Your task to perform on an android device: See recent photos Image 0: 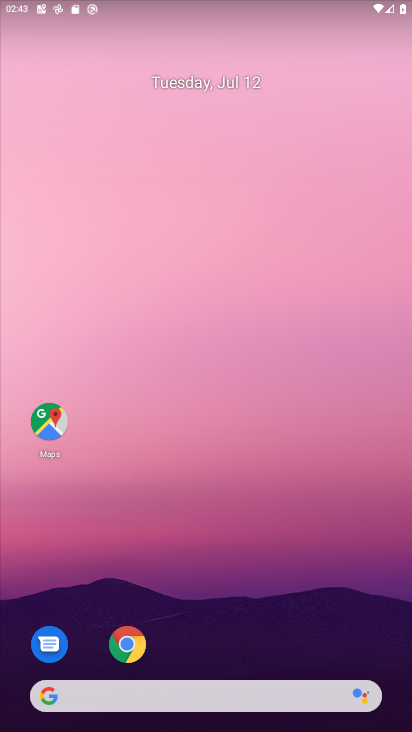
Step 0: drag from (222, 661) to (189, 19)
Your task to perform on an android device: See recent photos Image 1: 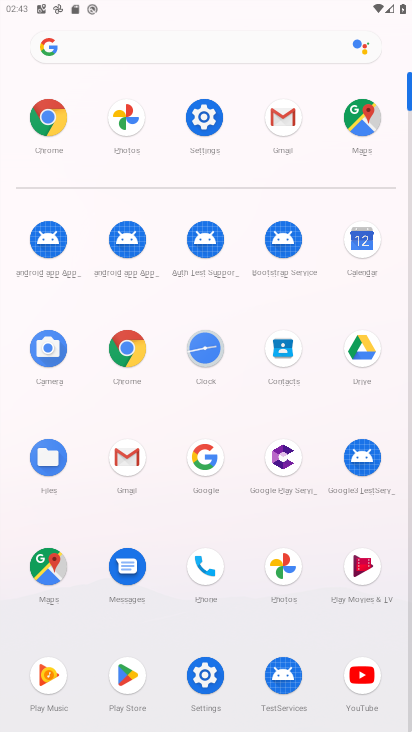
Step 1: click (282, 574)
Your task to perform on an android device: See recent photos Image 2: 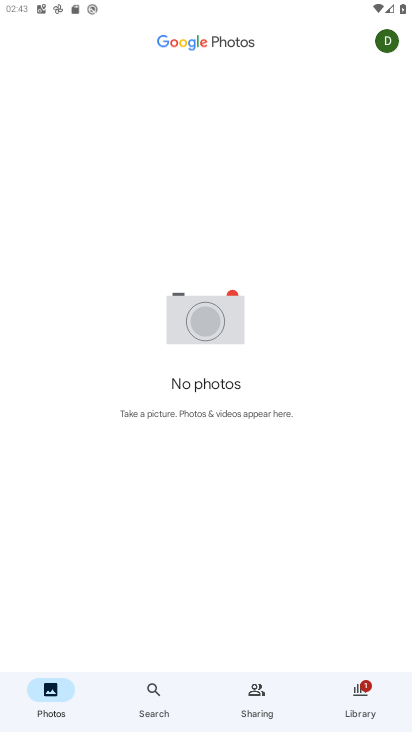
Step 2: task complete